Your task to perform on an android device: Set an alarm for 7pm Image 0: 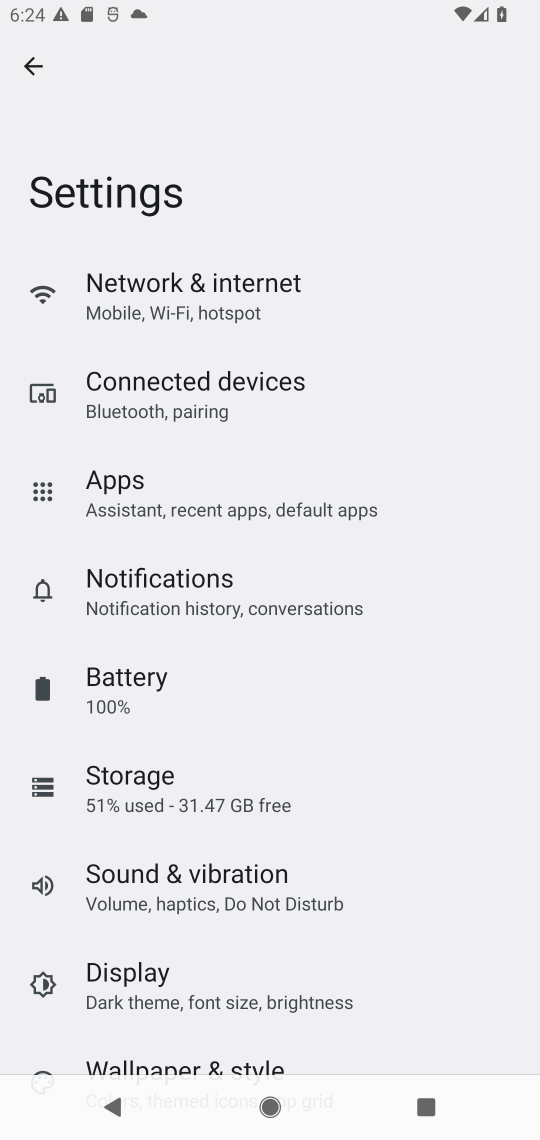
Step 0: click (100, 133)
Your task to perform on an android device: Set an alarm for 7pm Image 1: 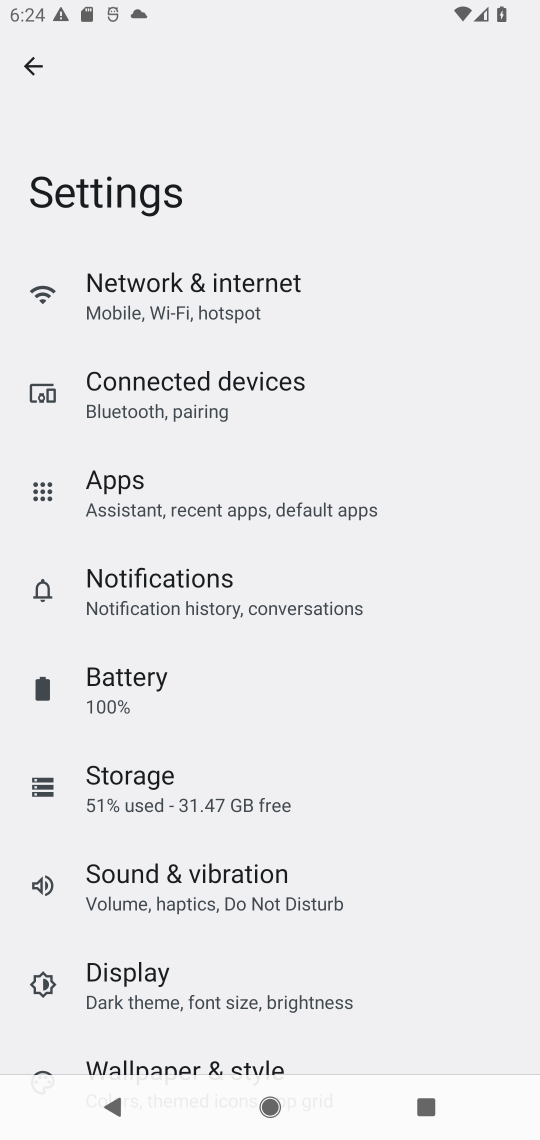
Step 1: press home button
Your task to perform on an android device: Set an alarm for 7pm Image 2: 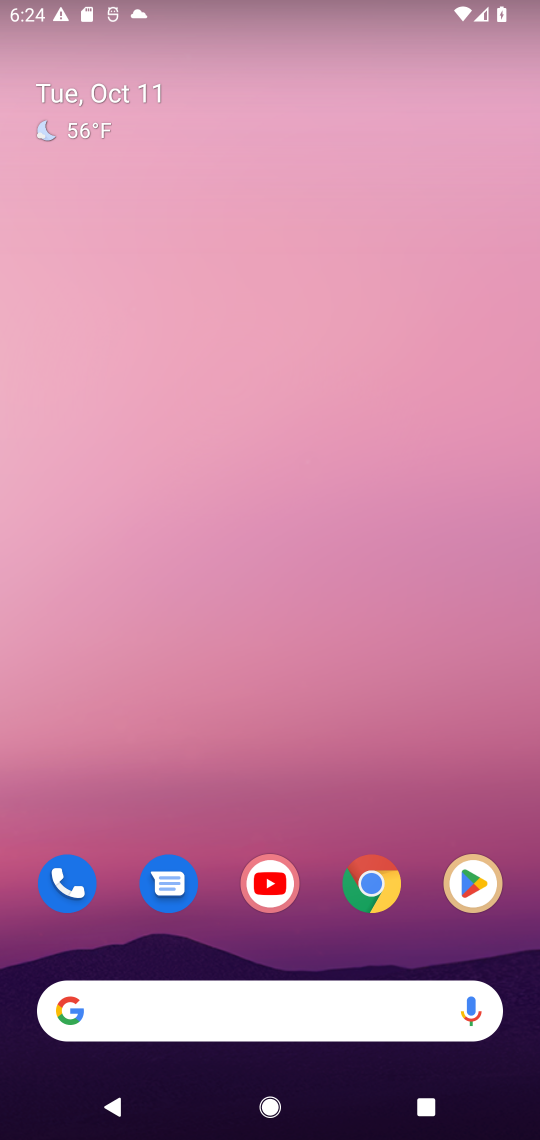
Step 2: drag from (329, 961) to (343, 255)
Your task to perform on an android device: Set an alarm for 7pm Image 3: 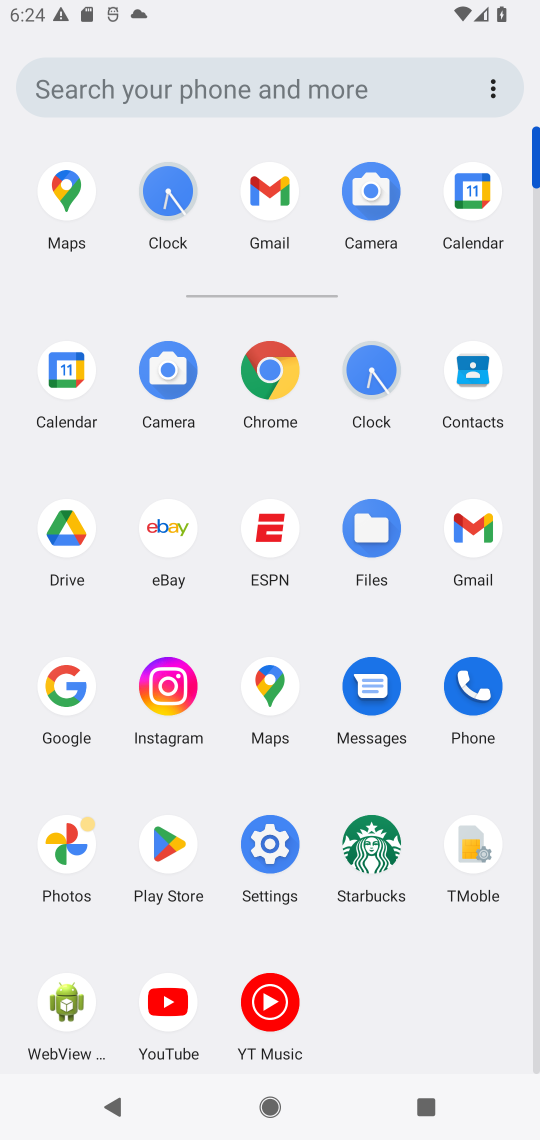
Step 3: click (373, 364)
Your task to perform on an android device: Set an alarm for 7pm Image 4: 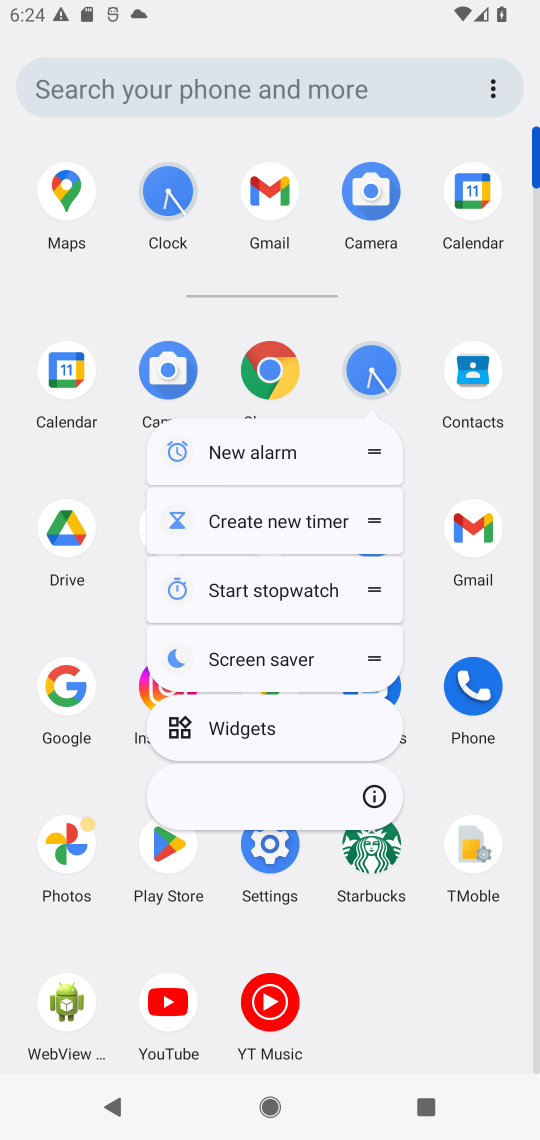
Step 4: click (373, 364)
Your task to perform on an android device: Set an alarm for 7pm Image 5: 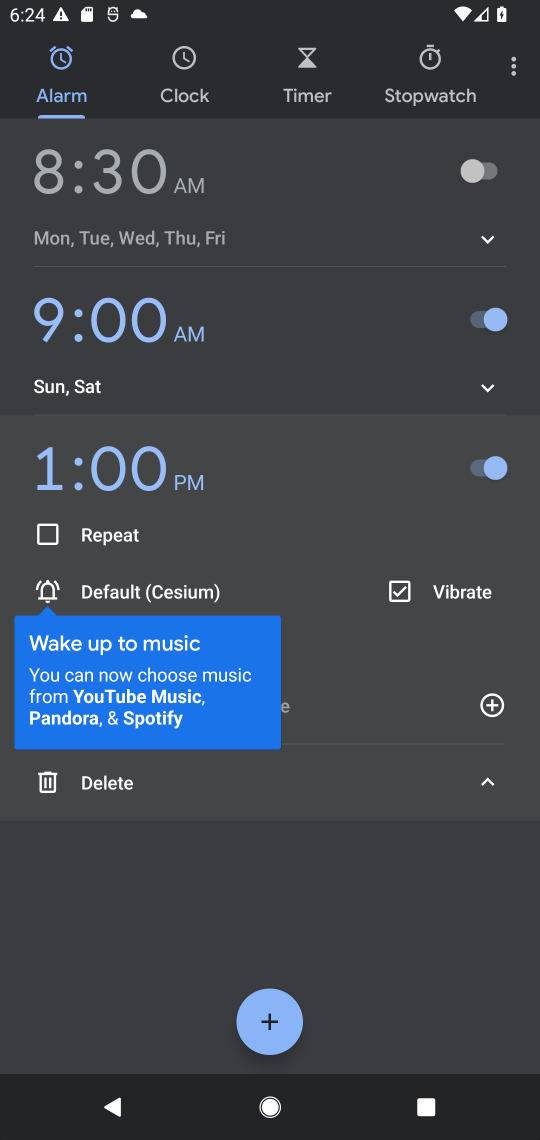
Step 5: click (274, 1017)
Your task to perform on an android device: Set an alarm for 7pm Image 6: 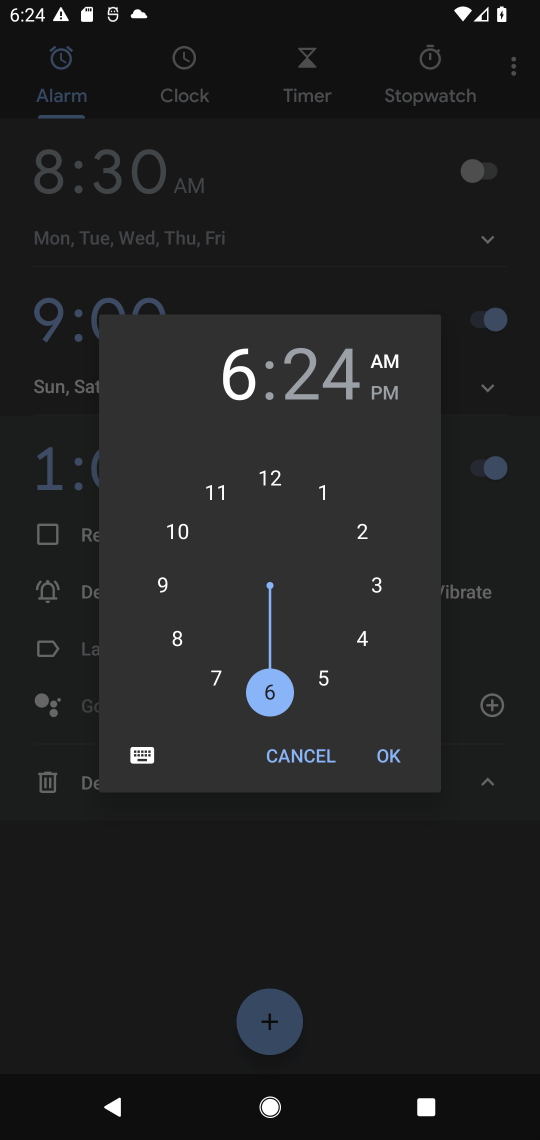
Step 6: click (247, 378)
Your task to perform on an android device: Set an alarm for 7pm Image 7: 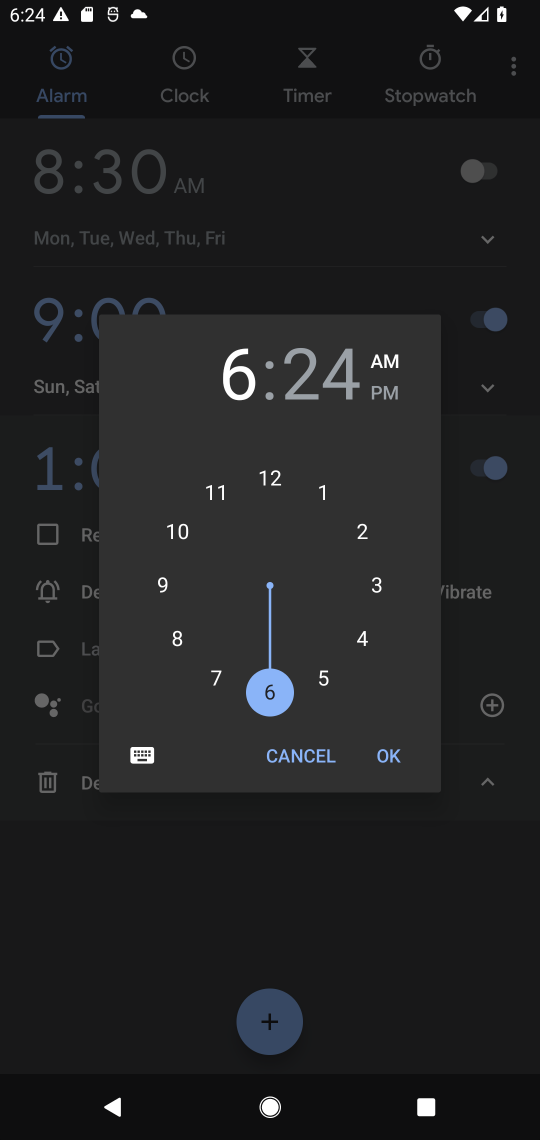
Step 7: click (217, 665)
Your task to perform on an android device: Set an alarm for 7pm Image 8: 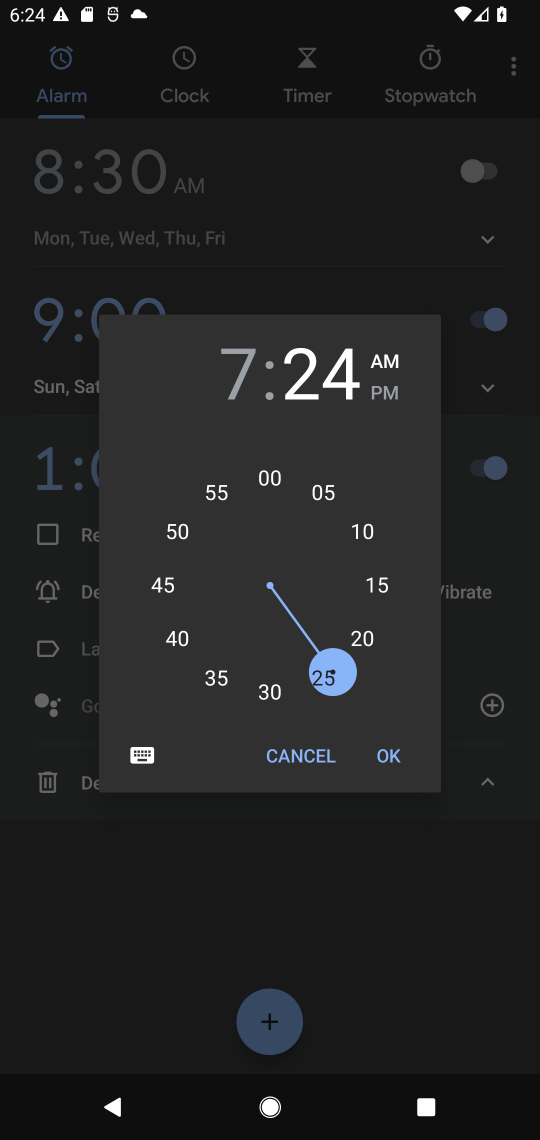
Step 8: click (285, 476)
Your task to perform on an android device: Set an alarm for 7pm Image 9: 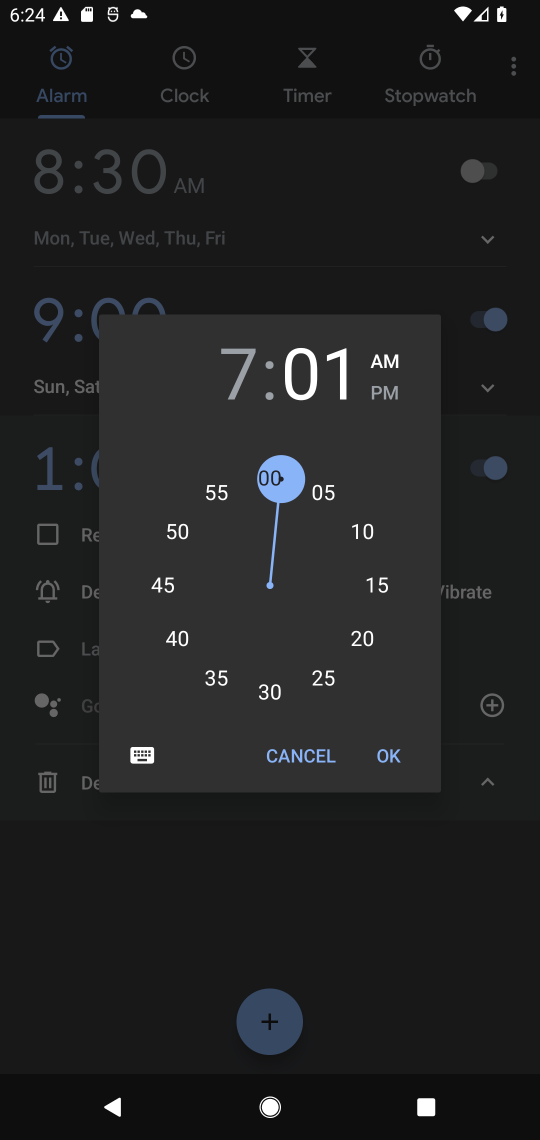
Step 9: click (271, 476)
Your task to perform on an android device: Set an alarm for 7pm Image 10: 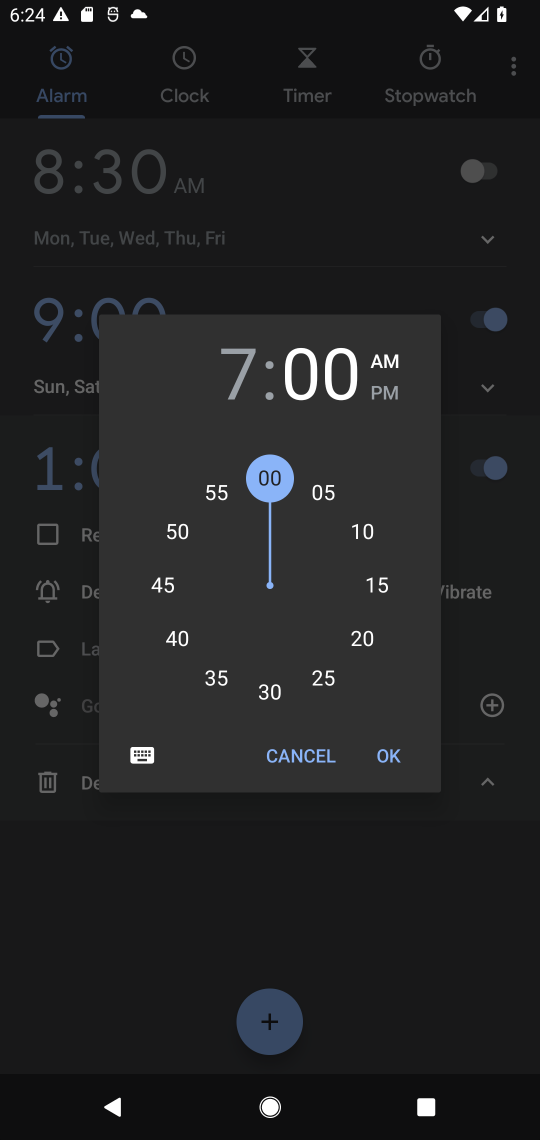
Step 10: click (372, 403)
Your task to perform on an android device: Set an alarm for 7pm Image 11: 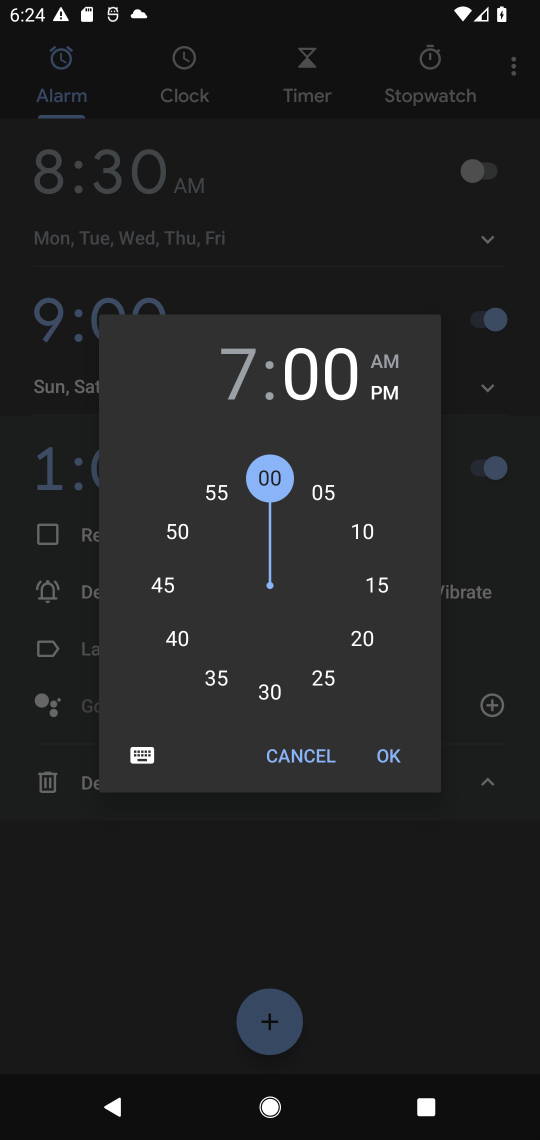
Step 11: click (408, 763)
Your task to perform on an android device: Set an alarm for 7pm Image 12: 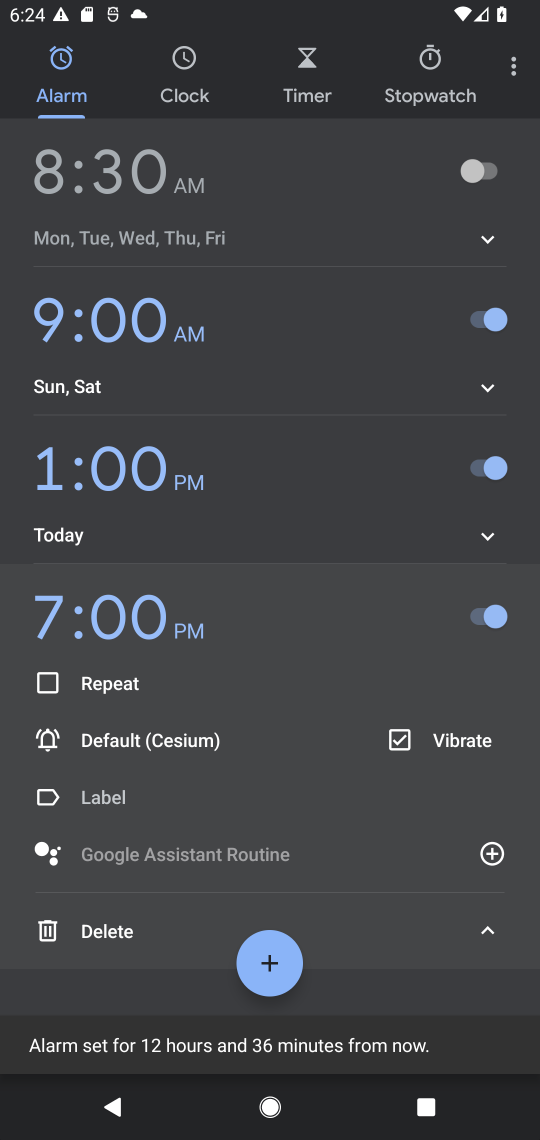
Step 12: task complete